Your task to perform on an android device: refresh tabs in the chrome app Image 0: 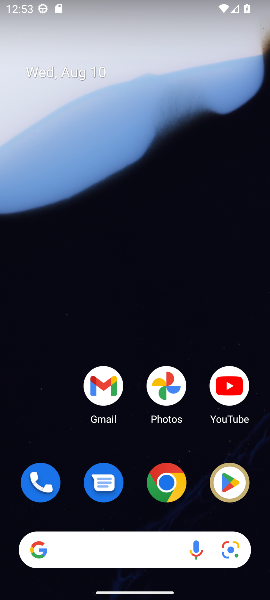
Step 0: click (175, 481)
Your task to perform on an android device: refresh tabs in the chrome app Image 1: 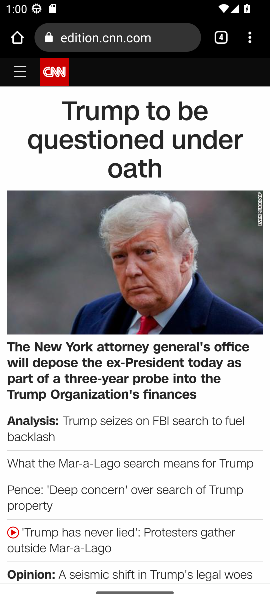
Step 1: task complete